Your task to perform on an android device: turn on the 24-hour format for clock Image 0: 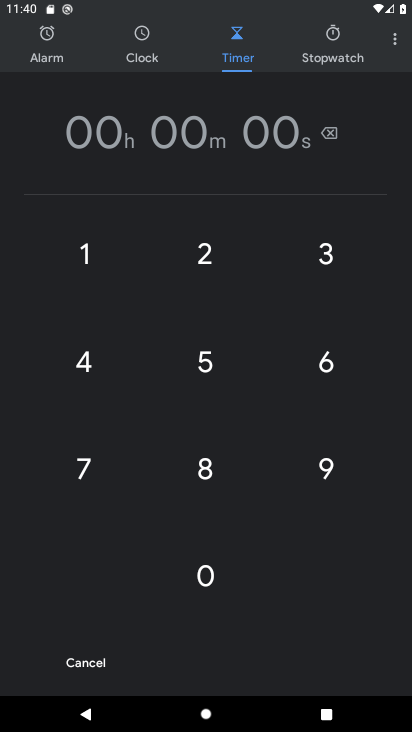
Step 0: press home button
Your task to perform on an android device: turn on the 24-hour format for clock Image 1: 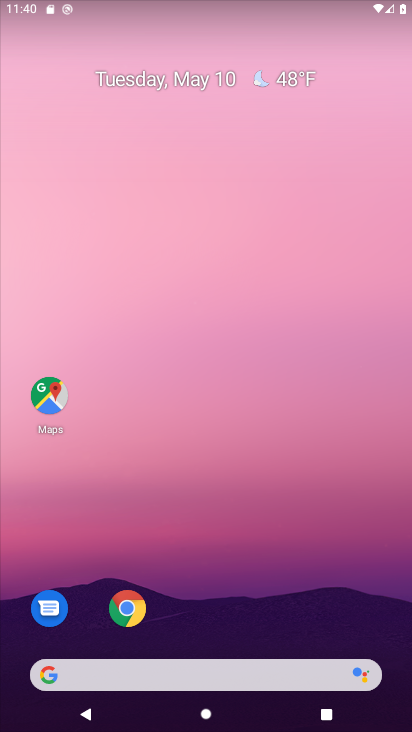
Step 1: drag from (207, 571) to (116, 28)
Your task to perform on an android device: turn on the 24-hour format for clock Image 2: 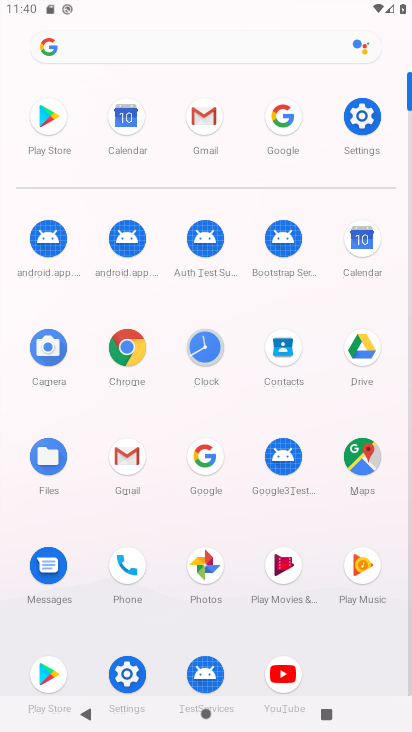
Step 2: click (209, 352)
Your task to perform on an android device: turn on the 24-hour format for clock Image 3: 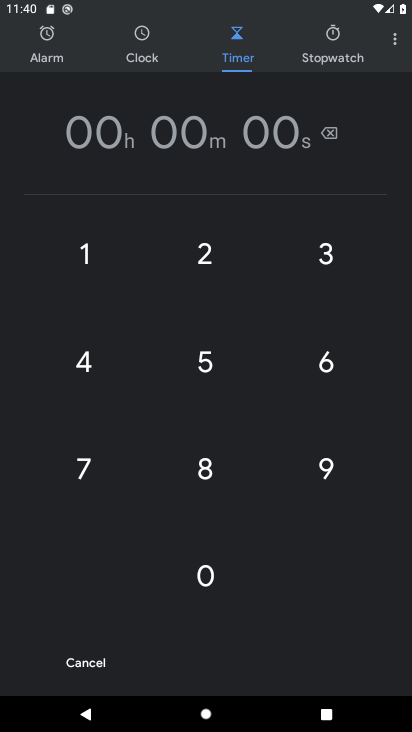
Step 3: click (395, 45)
Your task to perform on an android device: turn on the 24-hour format for clock Image 4: 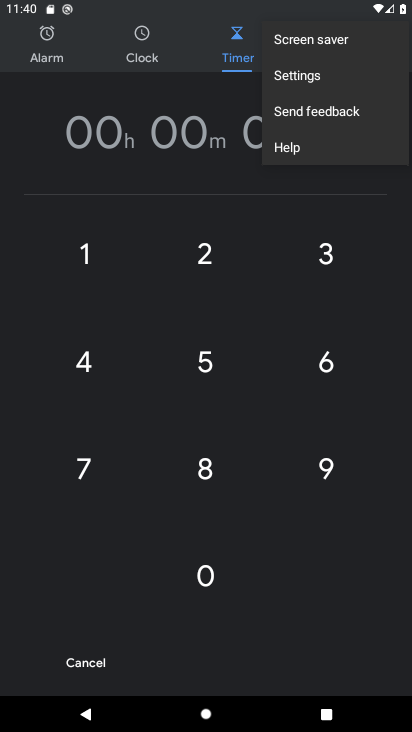
Step 4: click (311, 79)
Your task to perform on an android device: turn on the 24-hour format for clock Image 5: 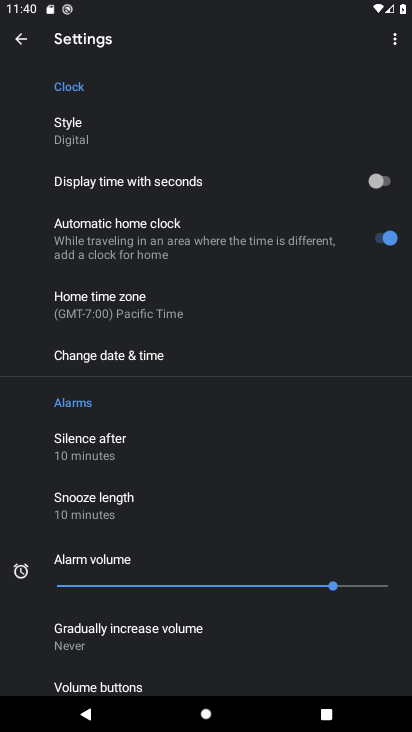
Step 5: click (197, 360)
Your task to perform on an android device: turn on the 24-hour format for clock Image 6: 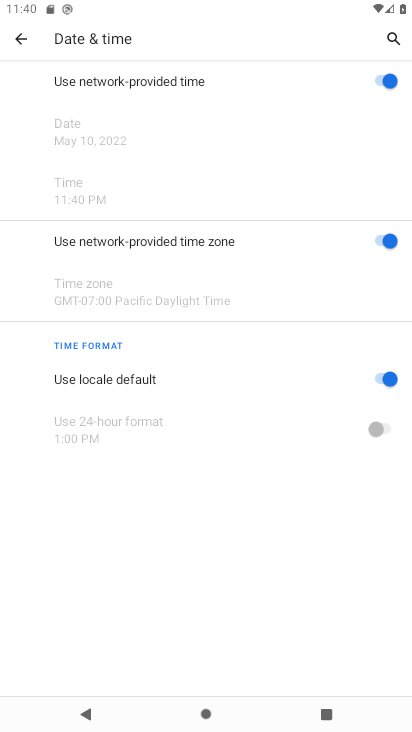
Step 6: click (391, 379)
Your task to perform on an android device: turn on the 24-hour format for clock Image 7: 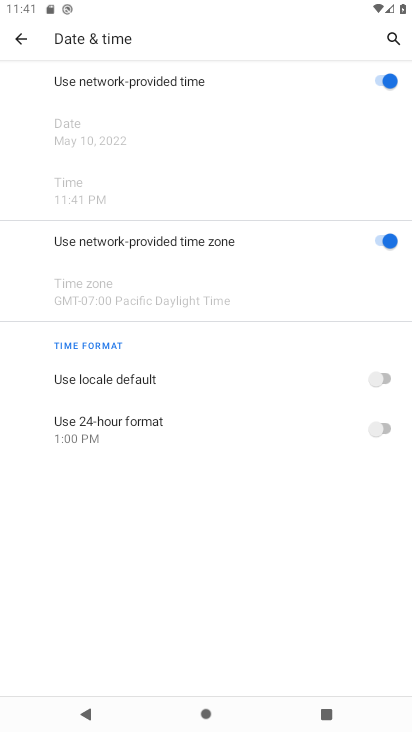
Step 7: click (382, 434)
Your task to perform on an android device: turn on the 24-hour format for clock Image 8: 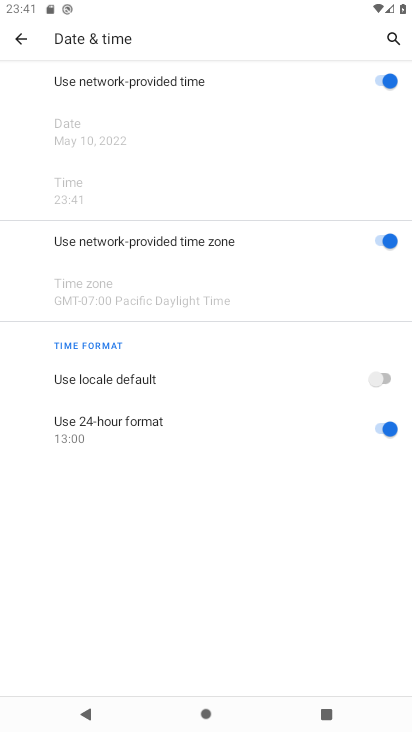
Step 8: task complete